Your task to perform on an android device: turn on showing notifications on the lock screen Image 0: 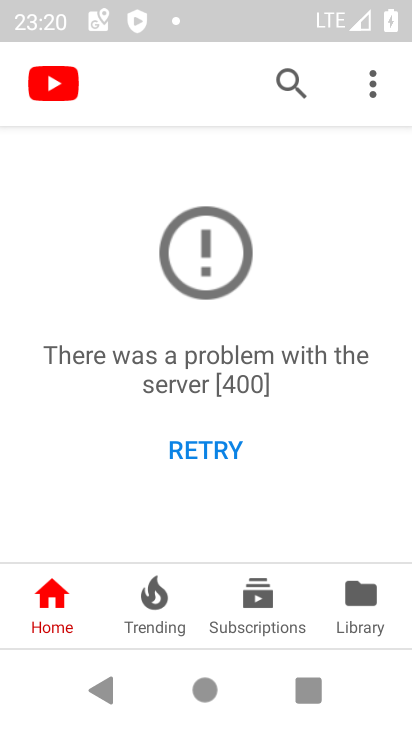
Step 0: press home button
Your task to perform on an android device: turn on showing notifications on the lock screen Image 1: 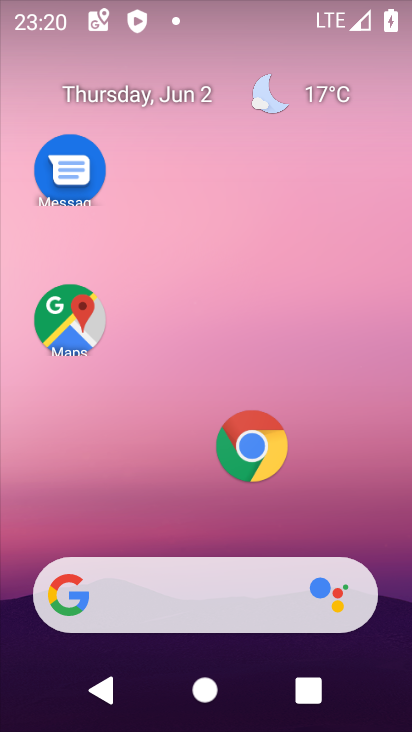
Step 1: drag from (361, 519) to (250, 52)
Your task to perform on an android device: turn on showing notifications on the lock screen Image 2: 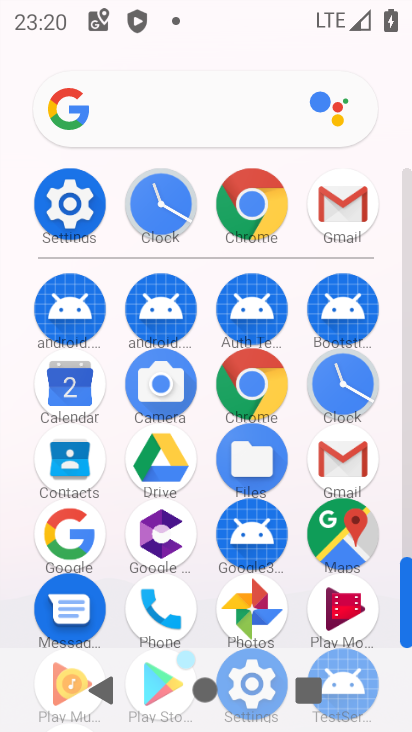
Step 2: click (50, 232)
Your task to perform on an android device: turn on showing notifications on the lock screen Image 3: 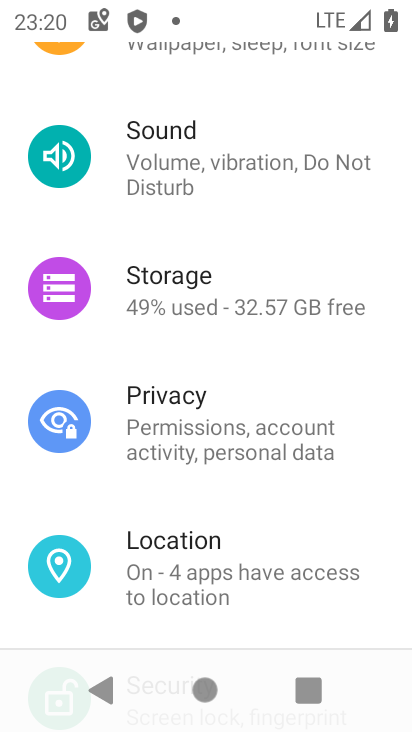
Step 3: drag from (201, 114) to (210, 492)
Your task to perform on an android device: turn on showing notifications on the lock screen Image 4: 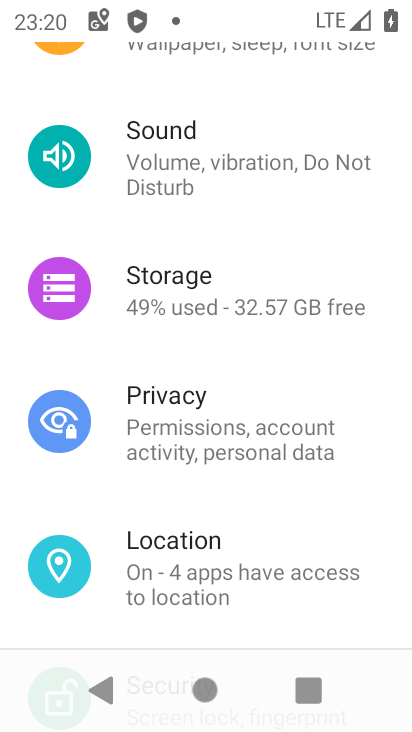
Step 4: drag from (179, 131) to (224, 478)
Your task to perform on an android device: turn on showing notifications on the lock screen Image 5: 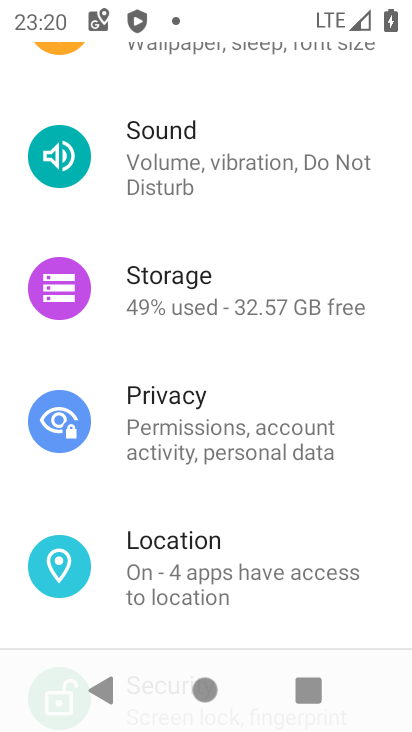
Step 5: drag from (209, 206) to (218, 565)
Your task to perform on an android device: turn on showing notifications on the lock screen Image 6: 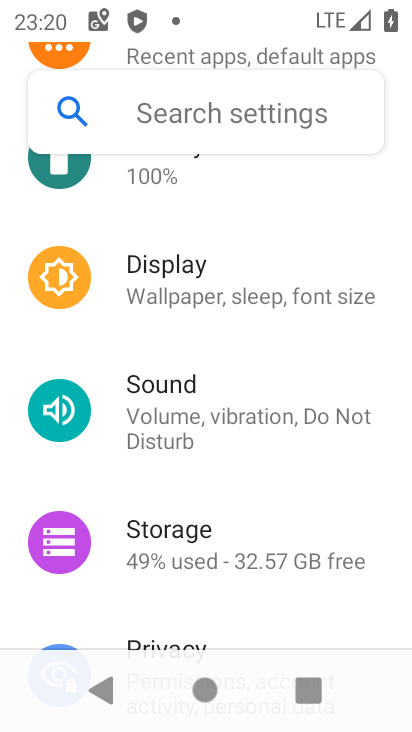
Step 6: drag from (205, 207) to (217, 643)
Your task to perform on an android device: turn on showing notifications on the lock screen Image 7: 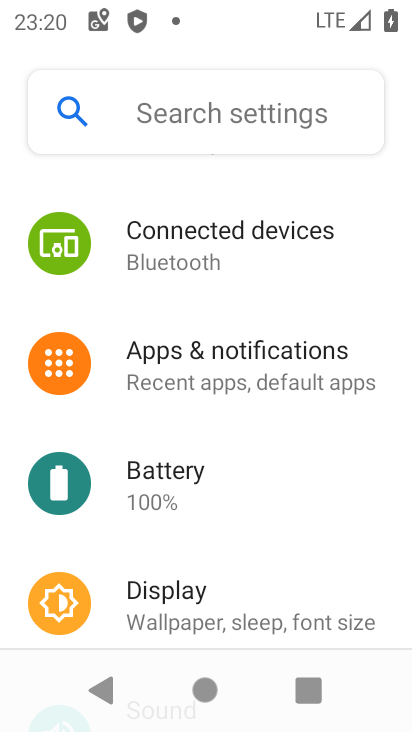
Step 7: click (198, 356)
Your task to perform on an android device: turn on showing notifications on the lock screen Image 8: 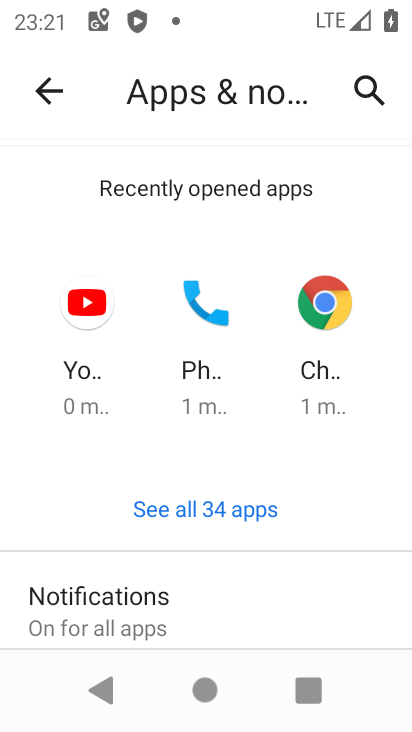
Step 8: task complete